Your task to perform on an android device: allow notifications from all sites in the chrome app Image 0: 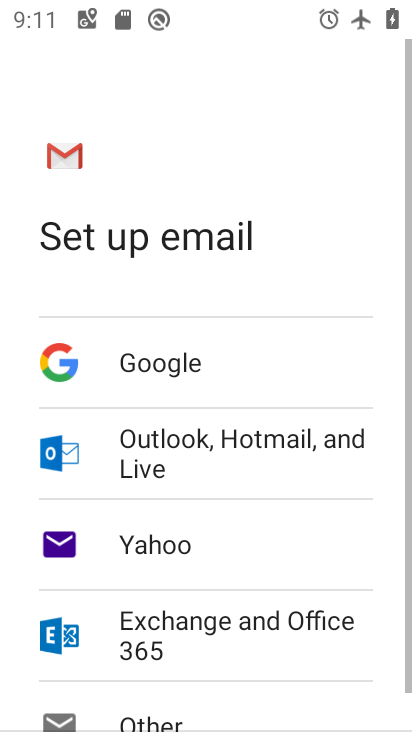
Step 0: press home button
Your task to perform on an android device: allow notifications from all sites in the chrome app Image 1: 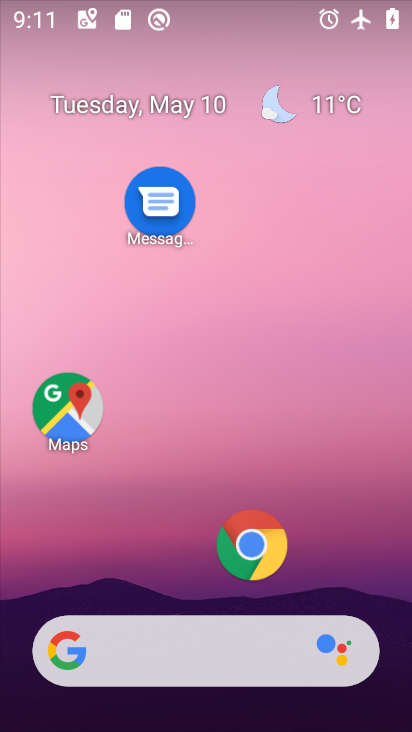
Step 1: click (248, 542)
Your task to perform on an android device: allow notifications from all sites in the chrome app Image 2: 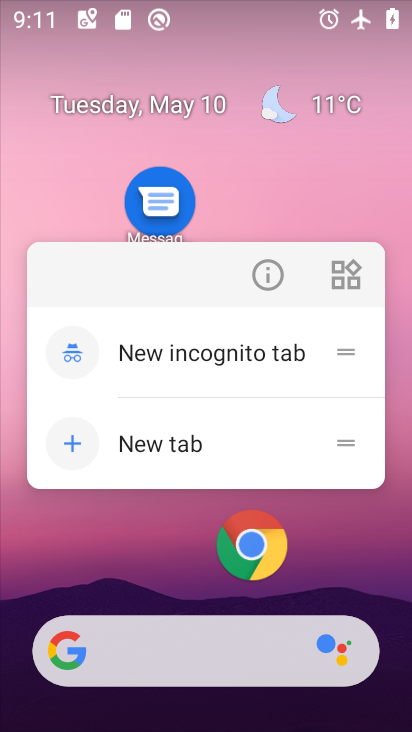
Step 2: click (251, 539)
Your task to perform on an android device: allow notifications from all sites in the chrome app Image 3: 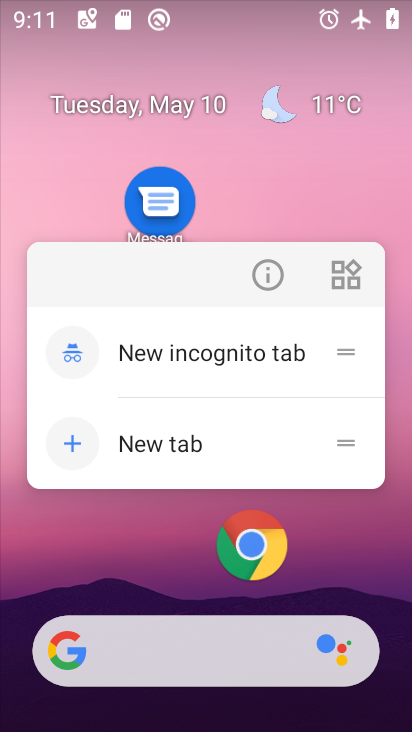
Step 3: click (244, 543)
Your task to perform on an android device: allow notifications from all sites in the chrome app Image 4: 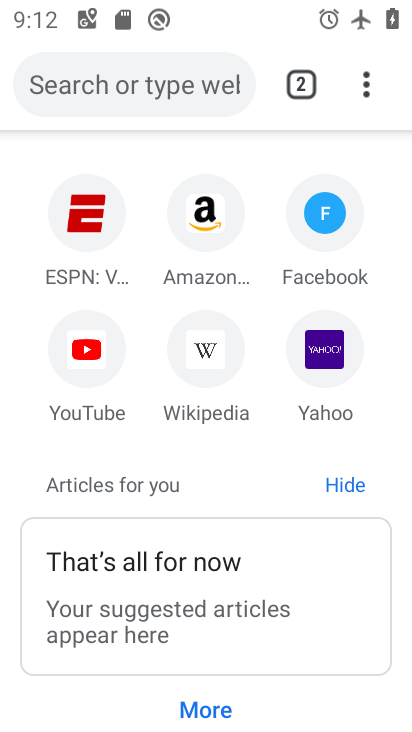
Step 4: click (370, 79)
Your task to perform on an android device: allow notifications from all sites in the chrome app Image 5: 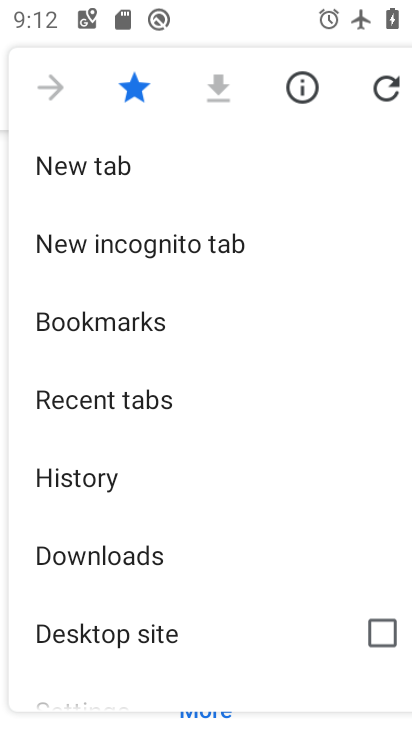
Step 5: drag from (183, 579) to (245, 107)
Your task to perform on an android device: allow notifications from all sites in the chrome app Image 6: 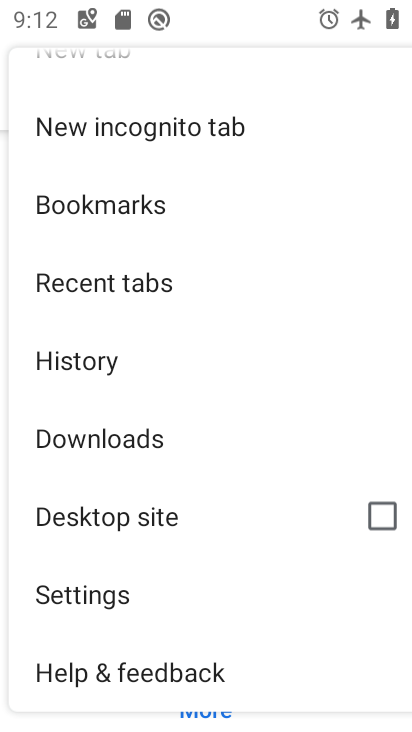
Step 6: click (144, 593)
Your task to perform on an android device: allow notifications from all sites in the chrome app Image 7: 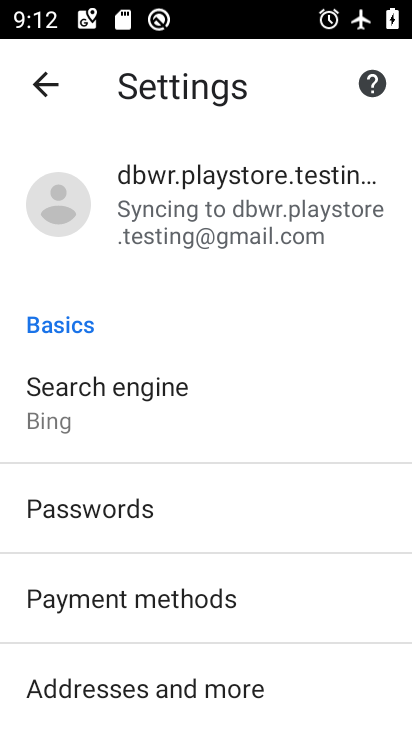
Step 7: drag from (278, 680) to (353, 185)
Your task to perform on an android device: allow notifications from all sites in the chrome app Image 8: 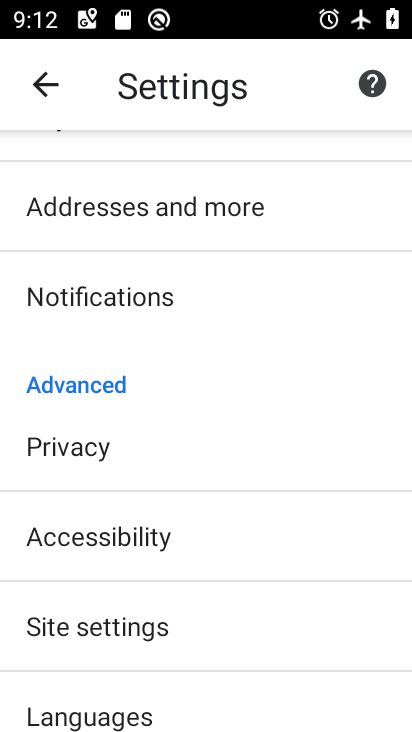
Step 8: click (176, 615)
Your task to perform on an android device: allow notifications from all sites in the chrome app Image 9: 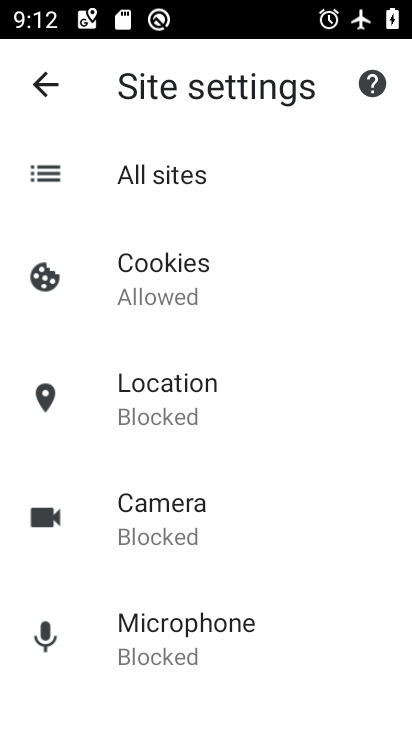
Step 9: click (100, 170)
Your task to perform on an android device: allow notifications from all sites in the chrome app Image 10: 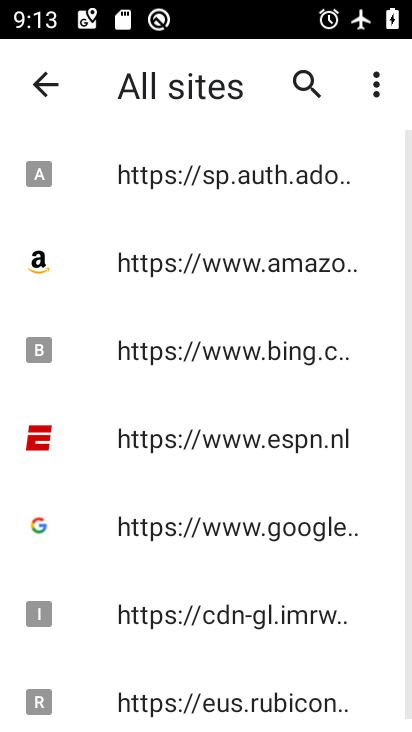
Step 10: drag from (114, 524) to (121, 136)
Your task to perform on an android device: allow notifications from all sites in the chrome app Image 11: 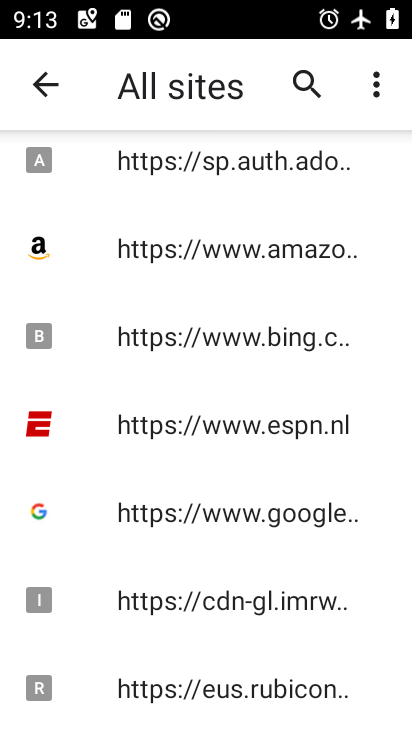
Step 11: click (90, 685)
Your task to perform on an android device: allow notifications from all sites in the chrome app Image 12: 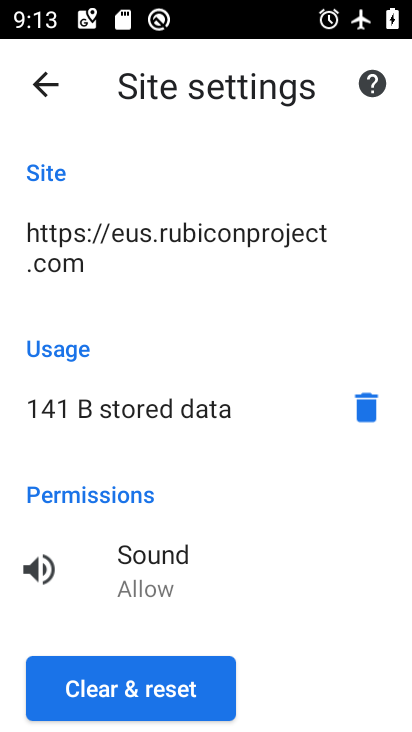
Step 12: click (42, 94)
Your task to perform on an android device: allow notifications from all sites in the chrome app Image 13: 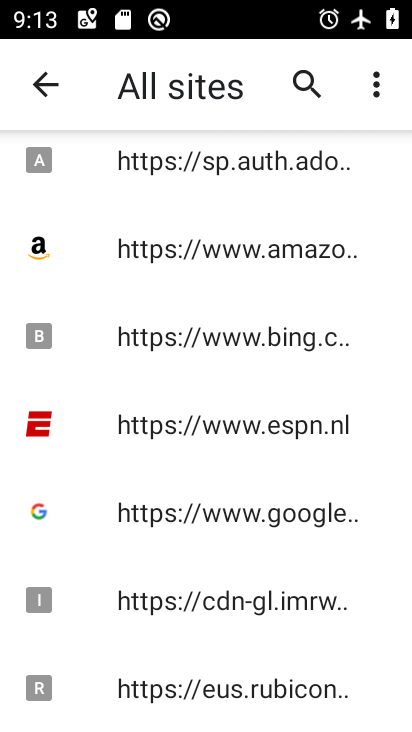
Step 13: click (96, 605)
Your task to perform on an android device: allow notifications from all sites in the chrome app Image 14: 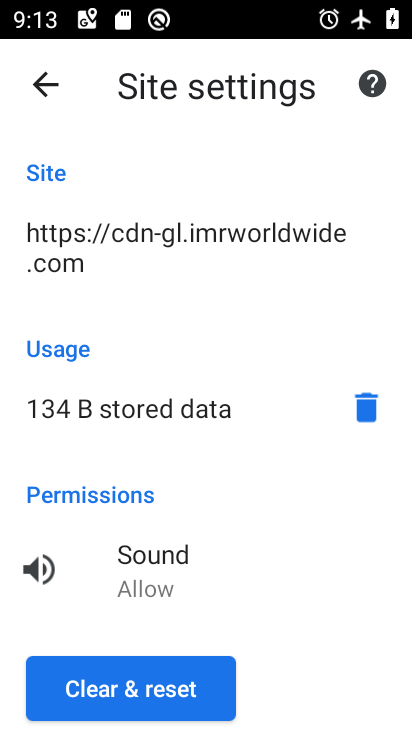
Step 14: click (52, 84)
Your task to perform on an android device: allow notifications from all sites in the chrome app Image 15: 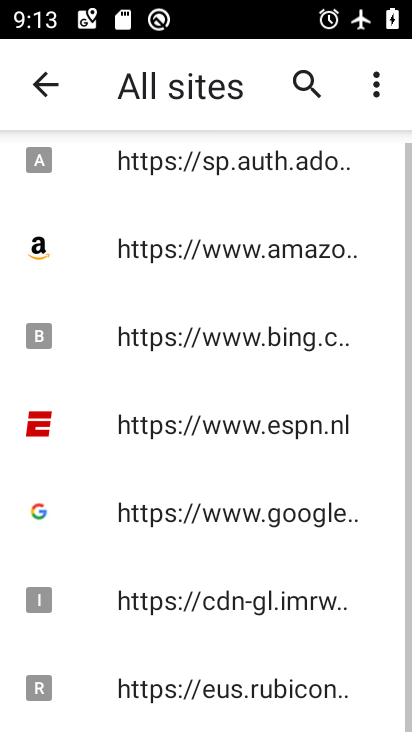
Step 15: click (88, 509)
Your task to perform on an android device: allow notifications from all sites in the chrome app Image 16: 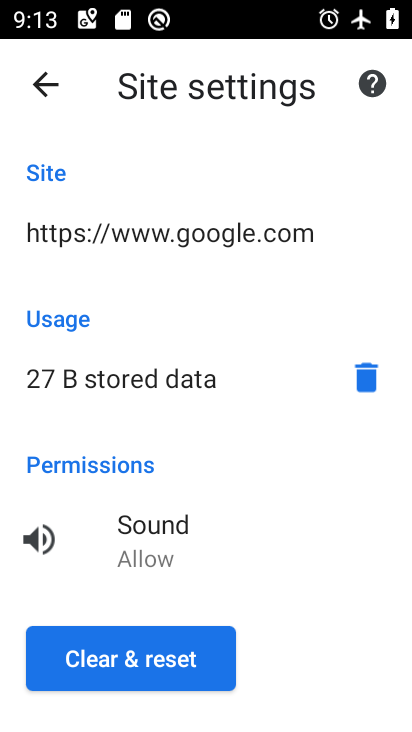
Step 16: click (56, 81)
Your task to perform on an android device: allow notifications from all sites in the chrome app Image 17: 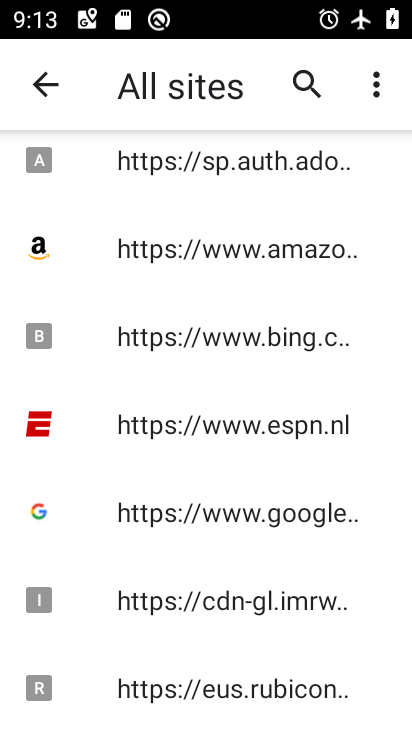
Step 17: click (94, 408)
Your task to perform on an android device: allow notifications from all sites in the chrome app Image 18: 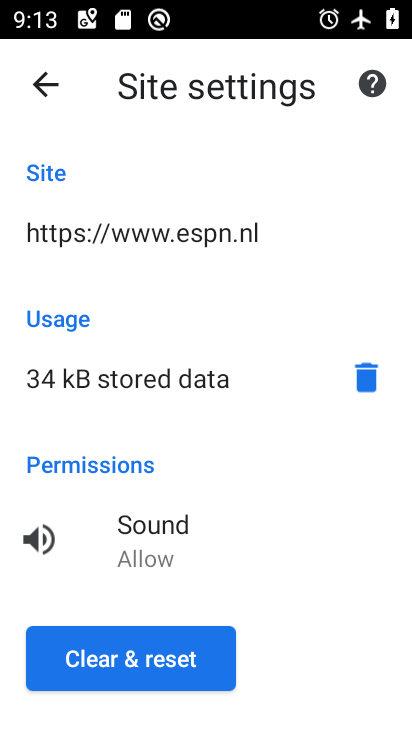
Step 18: click (39, 88)
Your task to perform on an android device: allow notifications from all sites in the chrome app Image 19: 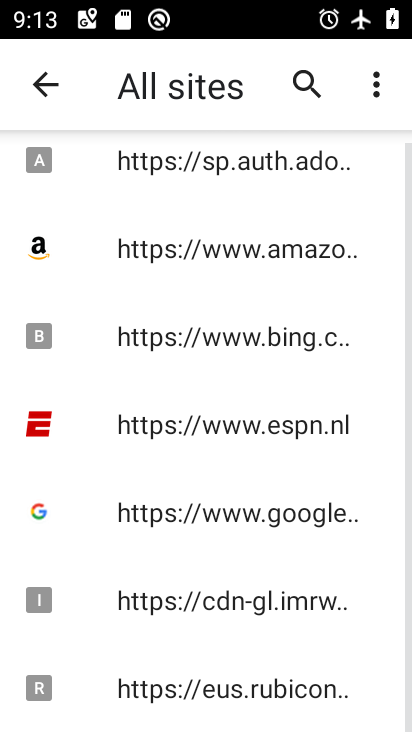
Step 19: click (95, 322)
Your task to perform on an android device: allow notifications from all sites in the chrome app Image 20: 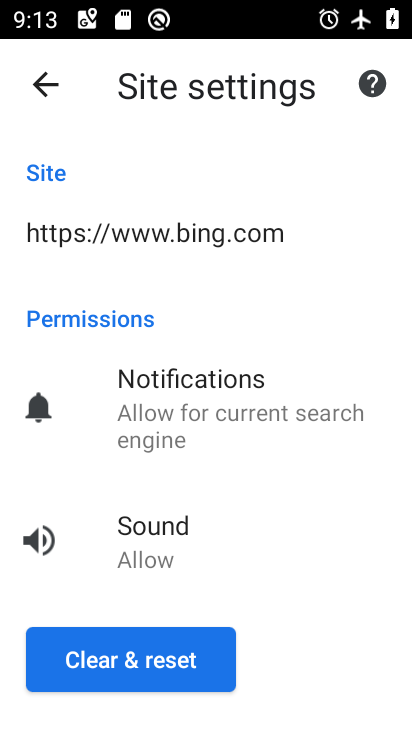
Step 20: click (43, 94)
Your task to perform on an android device: allow notifications from all sites in the chrome app Image 21: 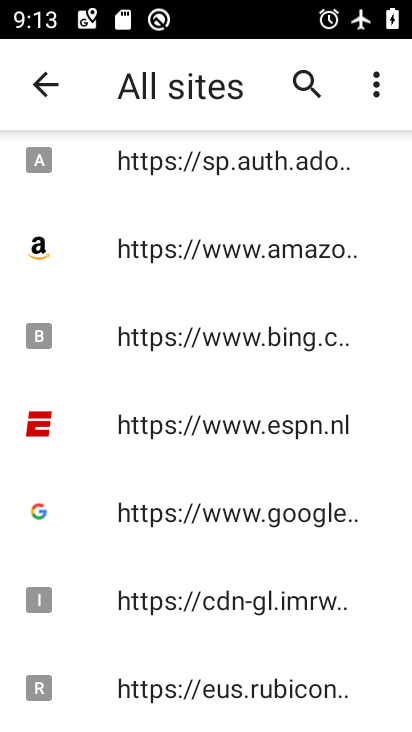
Step 21: click (85, 146)
Your task to perform on an android device: allow notifications from all sites in the chrome app Image 22: 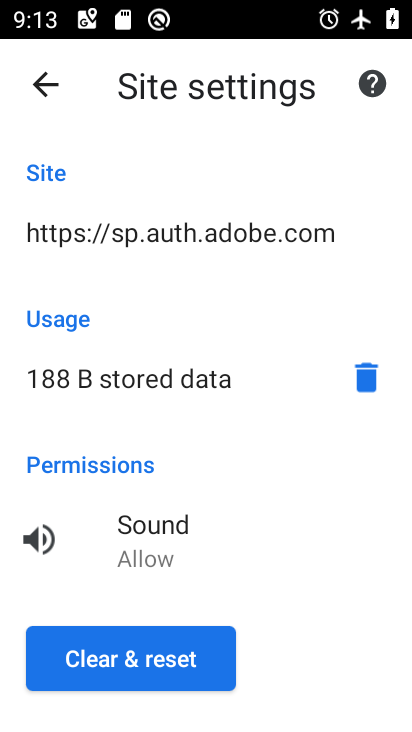
Step 22: click (48, 95)
Your task to perform on an android device: allow notifications from all sites in the chrome app Image 23: 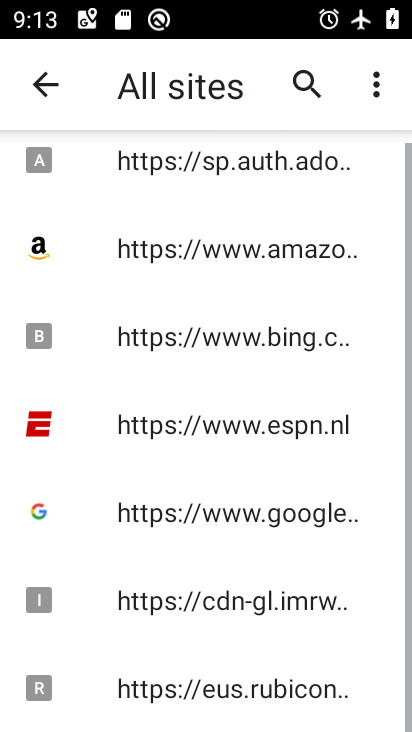
Step 23: task complete